Your task to perform on an android device: clear history in the chrome app Image 0: 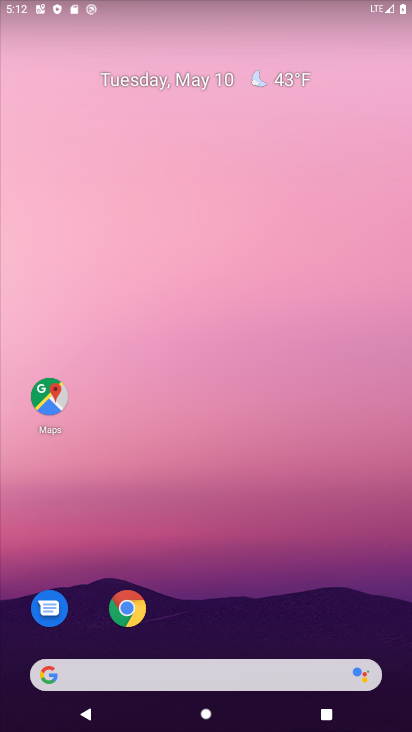
Step 0: click (132, 608)
Your task to perform on an android device: clear history in the chrome app Image 1: 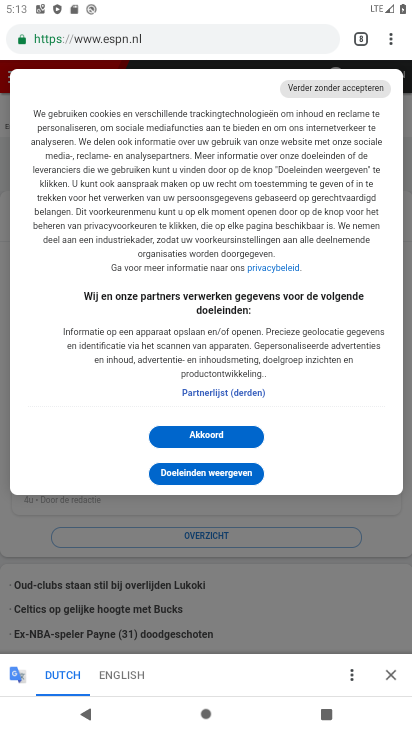
Step 1: drag from (393, 34) to (255, 213)
Your task to perform on an android device: clear history in the chrome app Image 2: 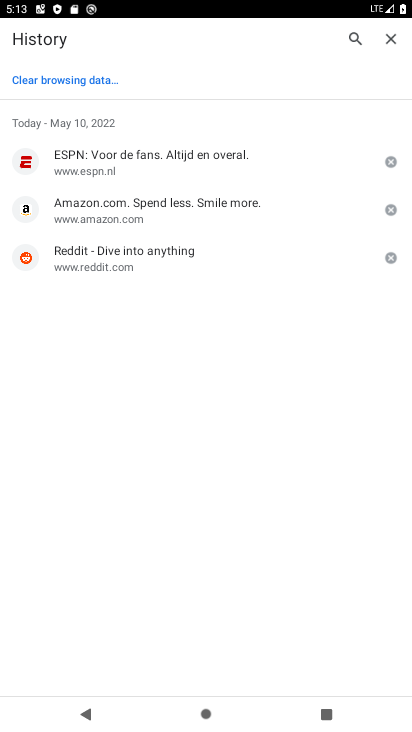
Step 2: click (94, 80)
Your task to perform on an android device: clear history in the chrome app Image 3: 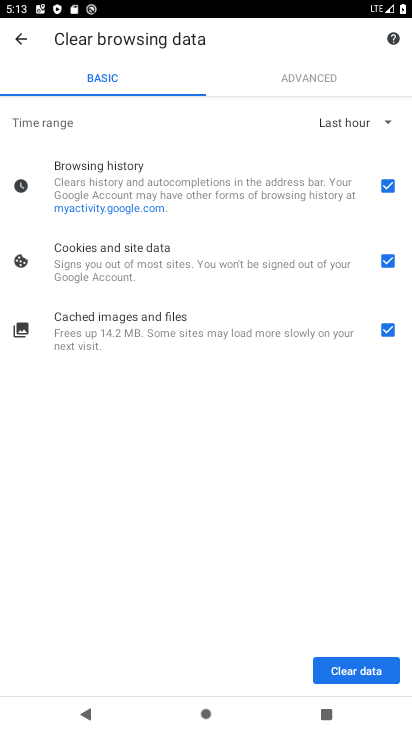
Step 3: click (327, 662)
Your task to perform on an android device: clear history in the chrome app Image 4: 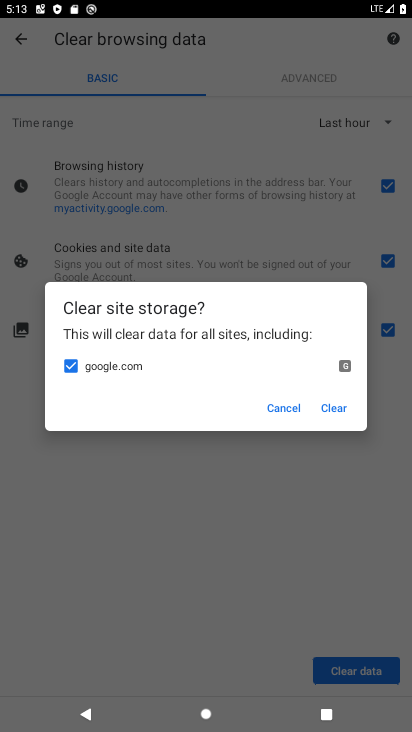
Step 4: click (341, 406)
Your task to perform on an android device: clear history in the chrome app Image 5: 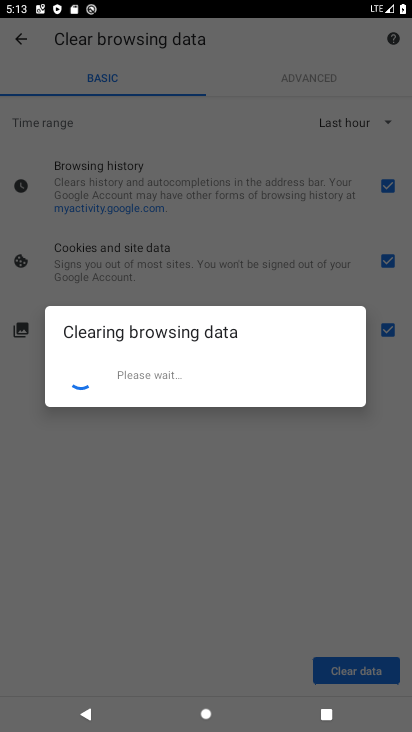
Step 5: task complete